Your task to perform on an android device: change alarm snooze length Image 0: 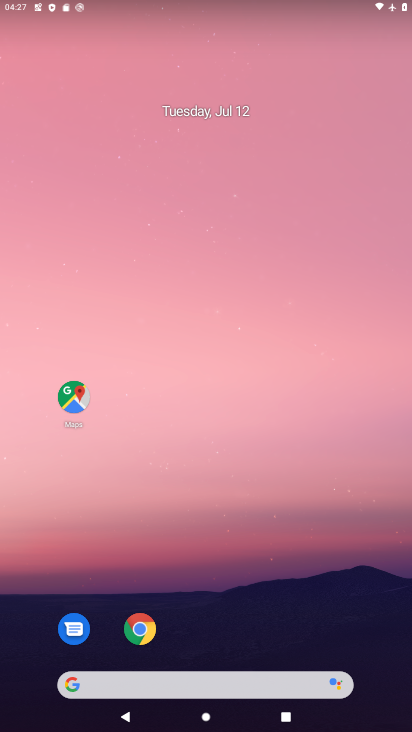
Step 0: drag from (289, 608) to (235, 44)
Your task to perform on an android device: change alarm snooze length Image 1: 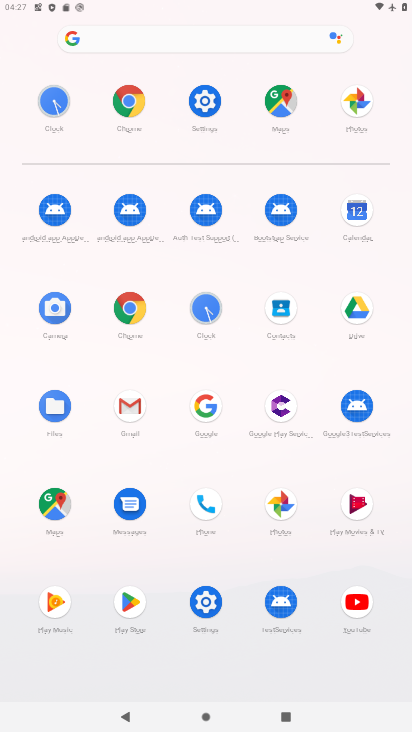
Step 1: click (207, 315)
Your task to perform on an android device: change alarm snooze length Image 2: 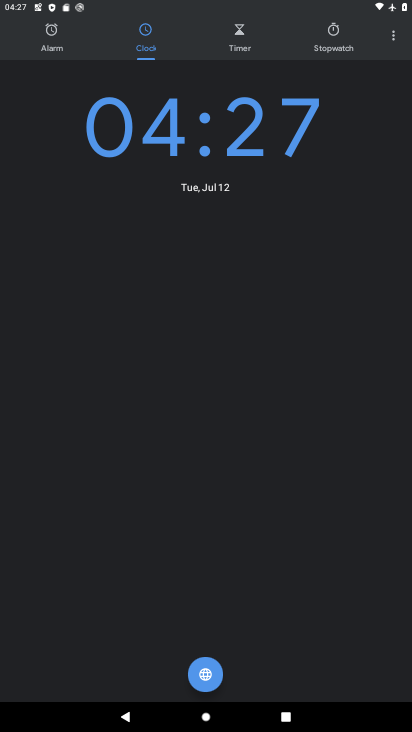
Step 2: click (401, 36)
Your task to perform on an android device: change alarm snooze length Image 3: 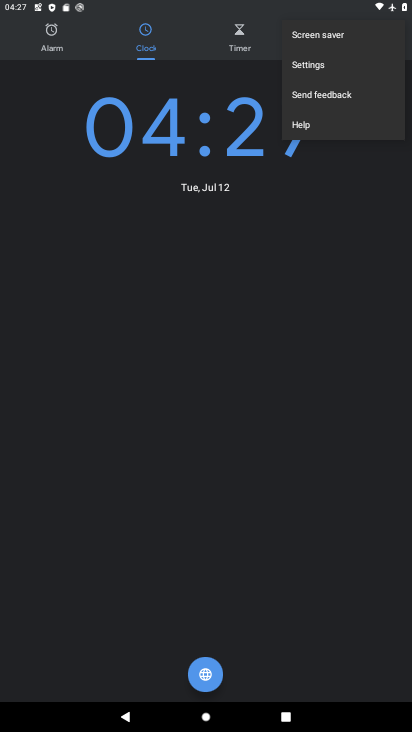
Step 3: click (314, 69)
Your task to perform on an android device: change alarm snooze length Image 4: 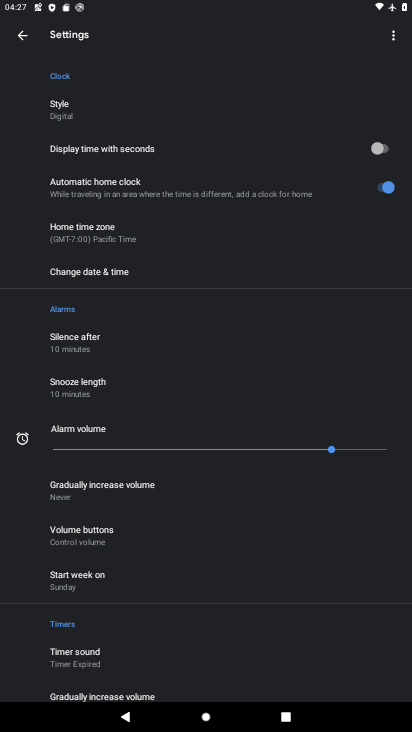
Step 4: click (91, 395)
Your task to perform on an android device: change alarm snooze length Image 5: 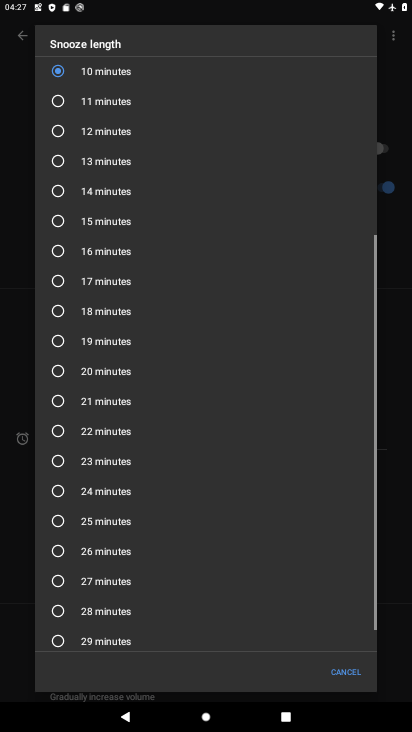
Step 5: click (99, 110)
Your task to perform on an android device: change alarm snooze length Image 6: 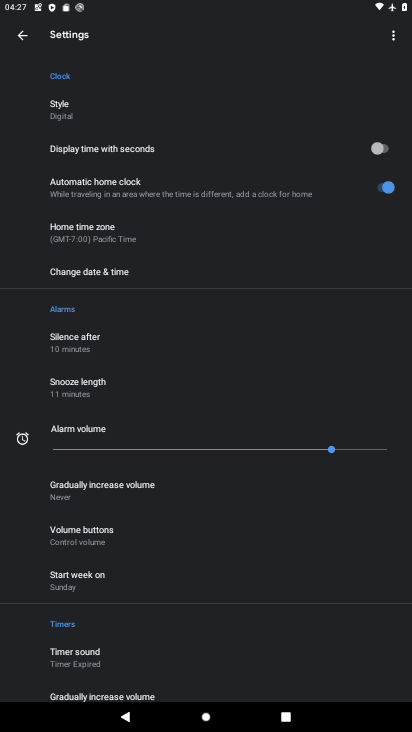
Step 6: task complete